Your task to perform on an android device: clear history in the chrome app Image 0: 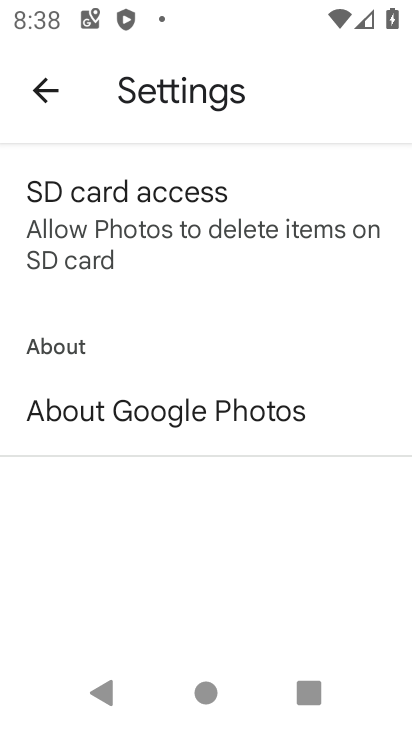
Step 0: press home button
Your task to perform on an android device: clear history in the chrome app Image 1: 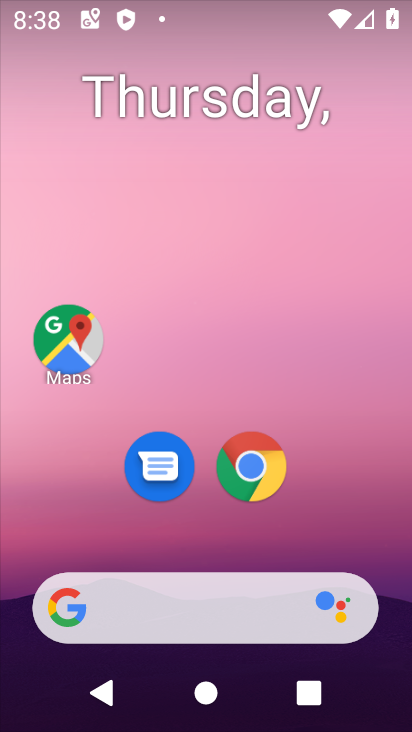
Step 1: click (258, 481)
Your task to perform on an android device: clear history in the chrome app Image 2: 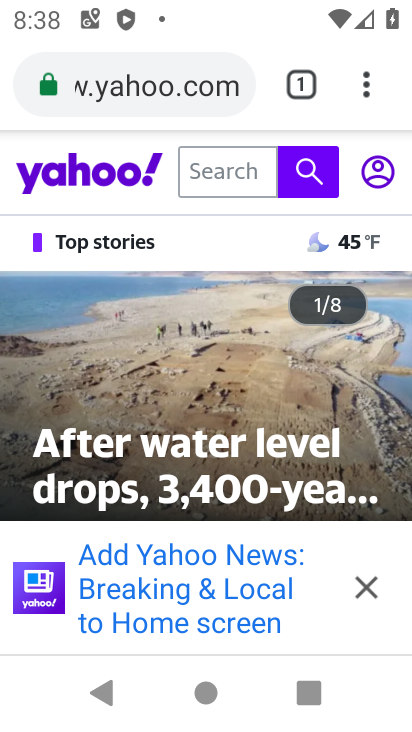
Step 2: drag from (371, 96) to (155, 172)
Your task to perform on an android device: clear history in the chrome app Image 3: 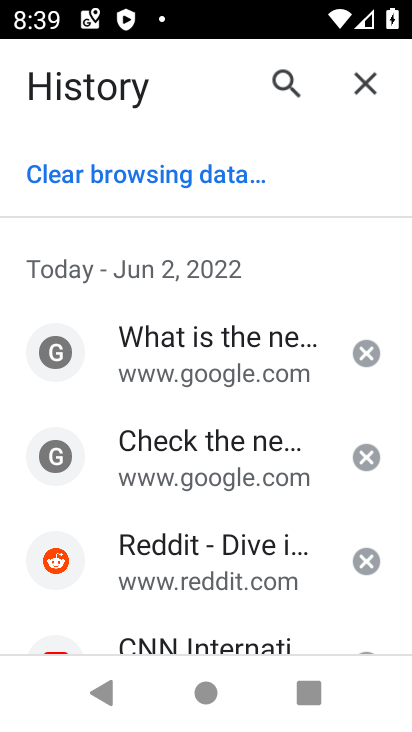
Step 3: click (160, 172)
Your task to perform on an android device: clear history in the chrome app Image 4: 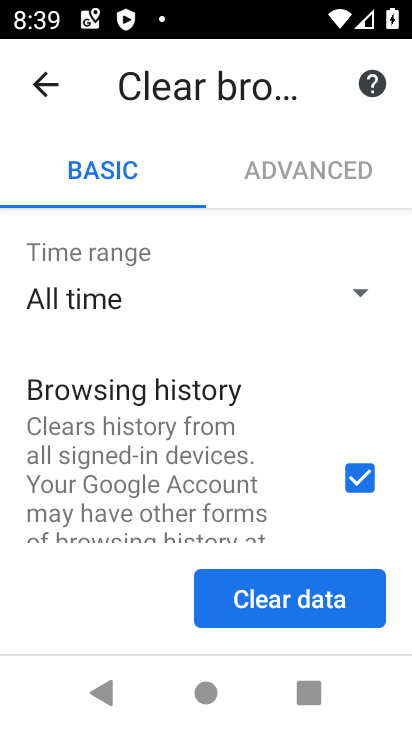
Step 4: drag from (205, 482) to (208, 198)
Your task to perform on an android device: clear history in the chrome app Image 5: 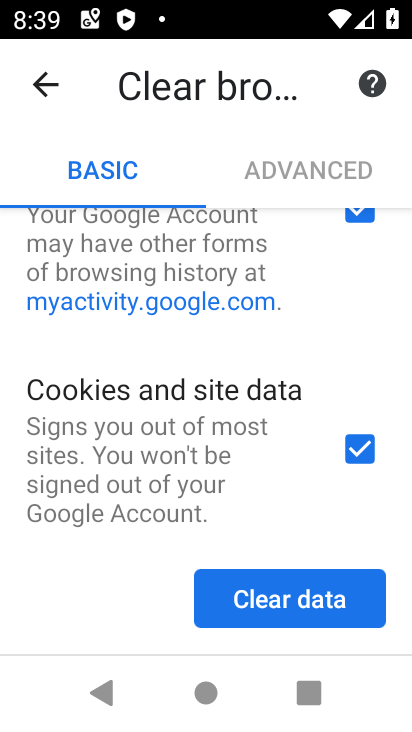
Step 5: click (344, 449)
Your task to perform on an android device: clear history in the chrome app Image 6: 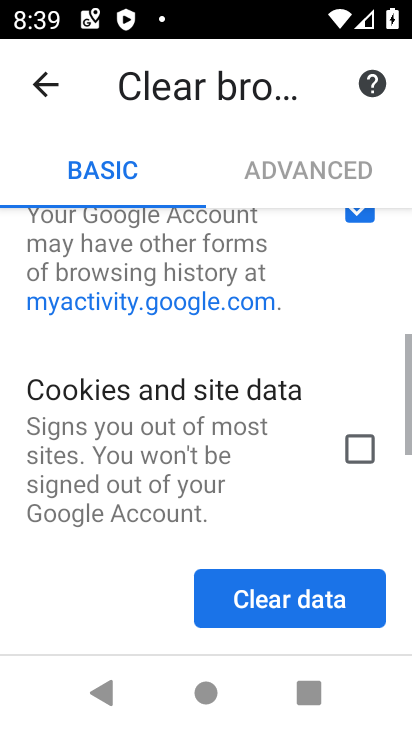
Step 6: drag from (138, 507) to (160, 199)
Your task to perform on an android device: clear history in the chrome app Image 7: 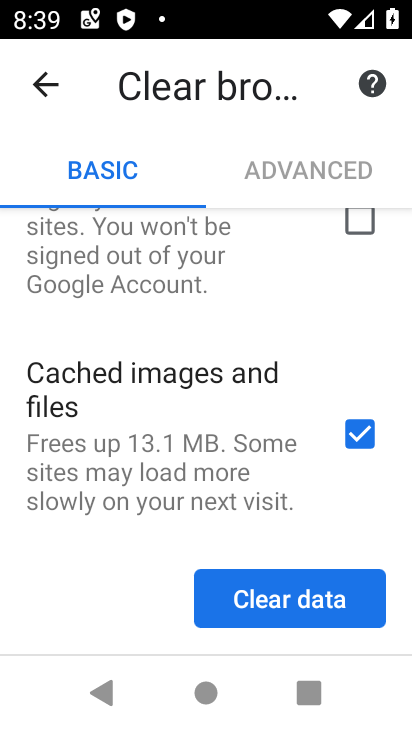
Step 7: click (355, 430)
Your task to perform on an android device: clear history in the chrome app Image 8: 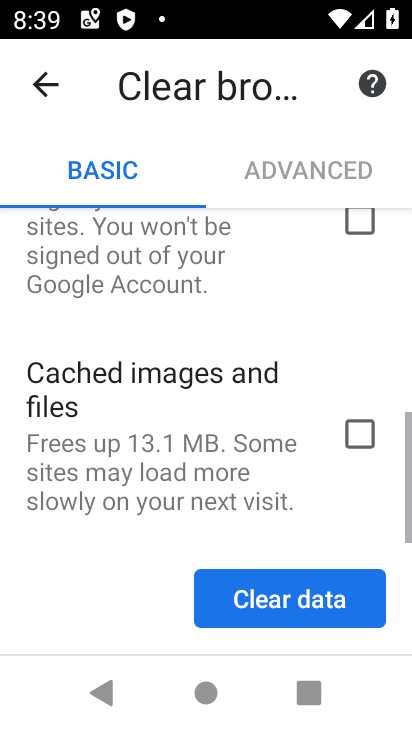
Step 8: drag from (118, 542) to (176, 276)
Your task to perform on an android device: clear history in the chrome app Image 9: 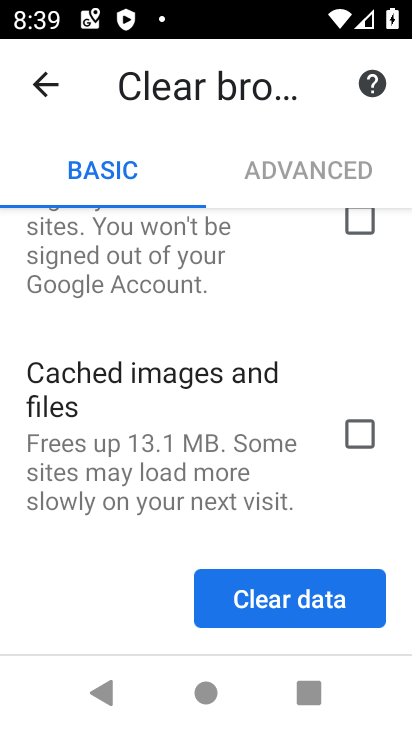
Step 9: click (292, 604)
Your task to perform on an android device: clear history in the chrome app Image 10: 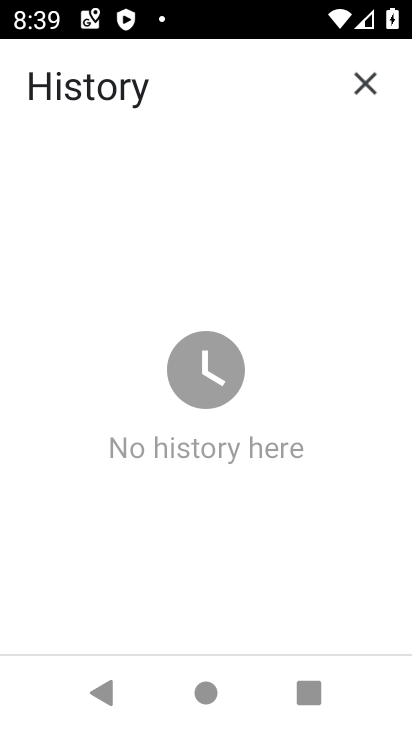
Step 10: press home button
Your task to perform on an android device: clear history in the chrome app Image 11: 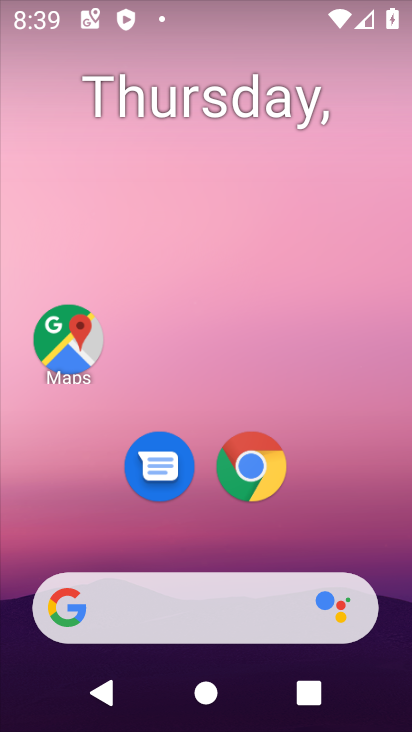
Step 11: click (251, 447)
Your task to perform on an android device: clear history in the chrome app Image 12: 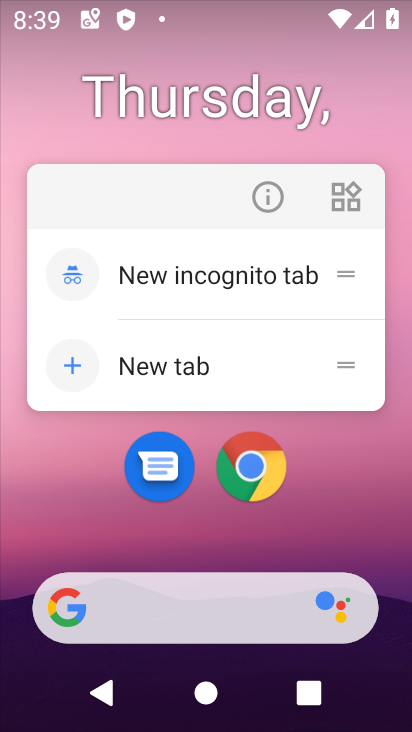
Step 12: click (260, 466)
Your task to perform on an android device: clear history in the chrome app Image 13: 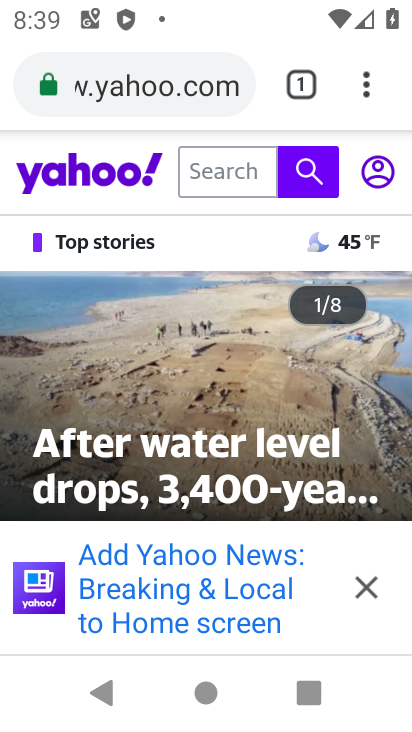
Step 13: drag from (365, 90) to (136, 143)
Your task to perform on an android device: clear history in the chrome app Image 14: 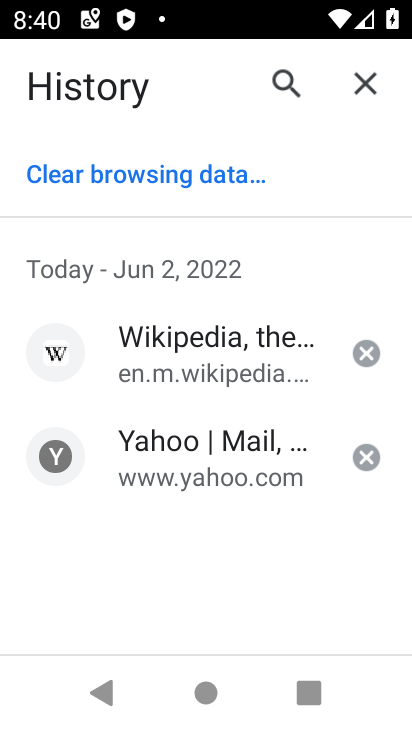
Step 14: click (94, 177)
Your task to perform on an android device: clear history in the chrome app Image 15: 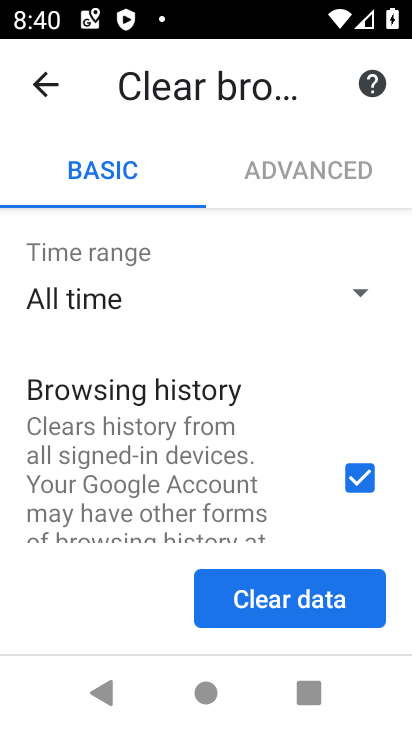
Step 15: drag from (189, 492) to (234, 97)
Your task to perform on an android device: clear history in the chrome app Image 16: 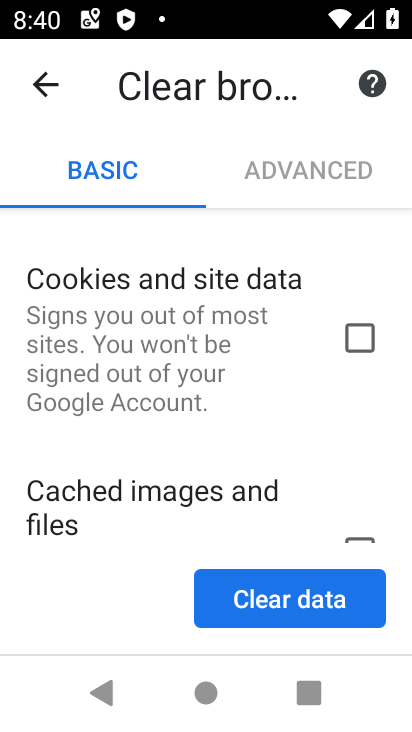
Step 16: drag from (193, 513) to (220, 169)
Your task to perform on an android device: clear history in the chrome app Image 17: 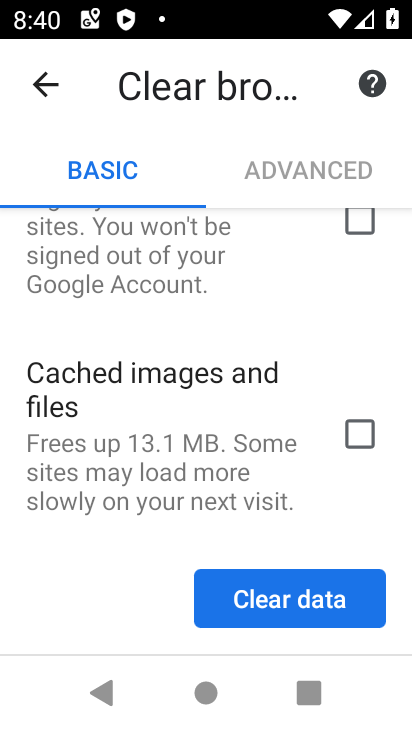
Step 17: click (259, 599)
Your task to perform on an android device: clear history in the chrome app Image 18: 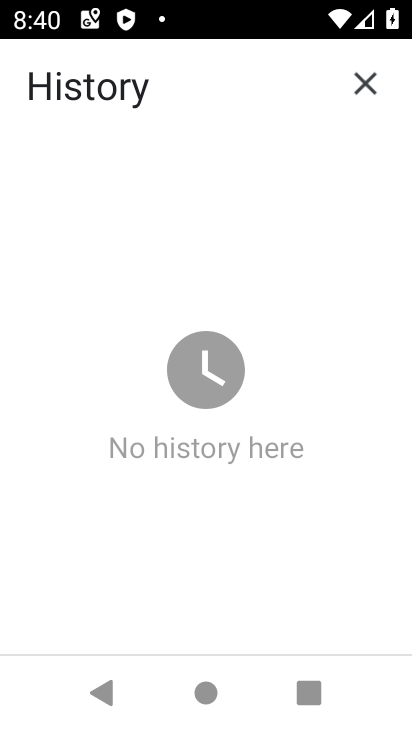
Step 18: task complete